Your task to perform on an android device: set an alarm Image 0: 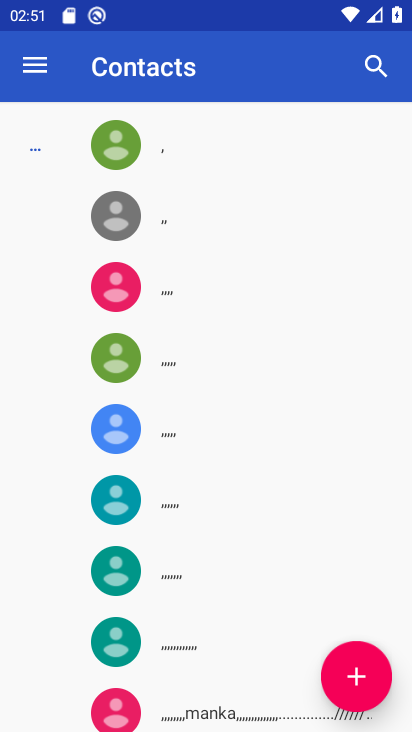
Step 0: press home button
Your task to perform on an android device: set an alarm Image 1: 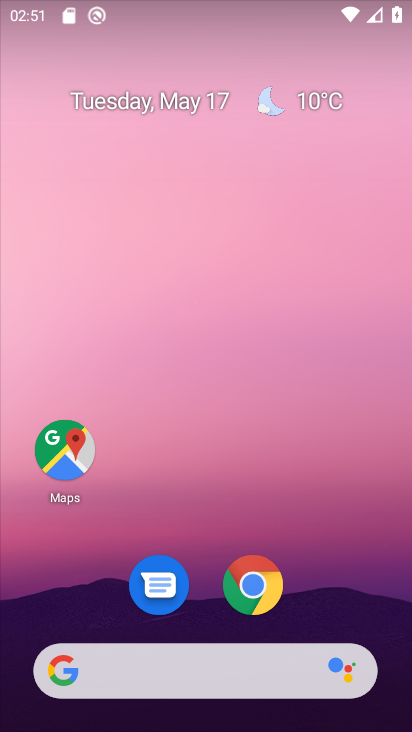
Step 1: drag from (247, 509) to (209, 61)
Your task to perform on an android device: set an alarm Image 2: 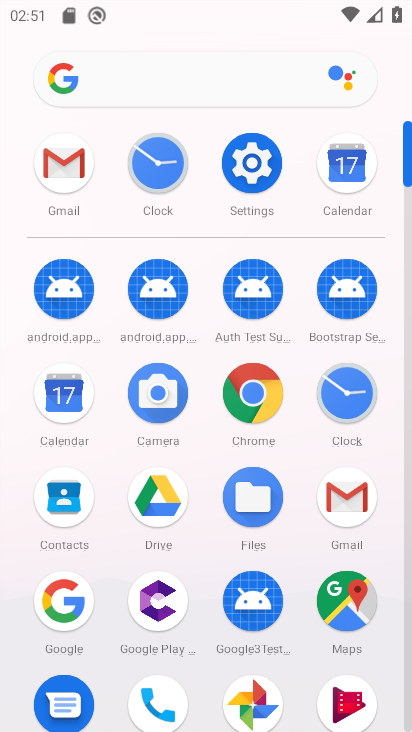
Step 2: click (157, 165)
Your task to perform on an android device: set an alarm Image 3: 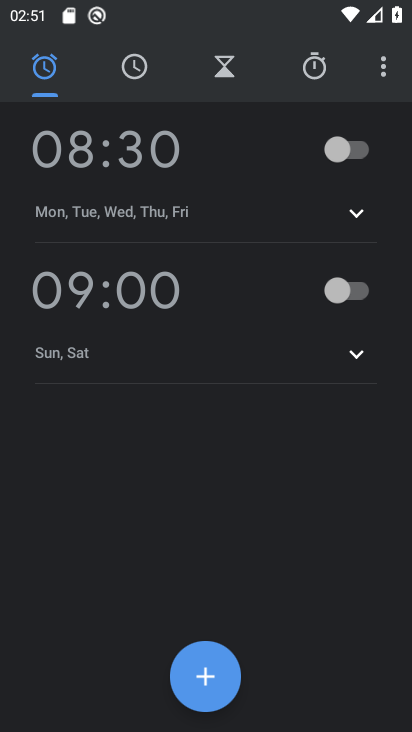
Step 3: click (200, 668)
Your task to perform on an android device: set an alarm Image 4: 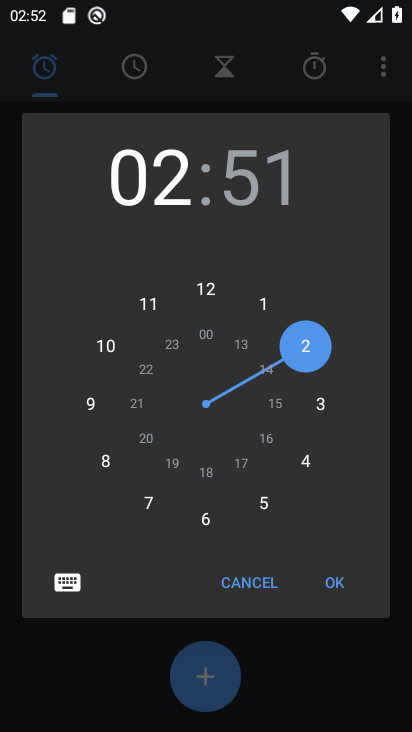
Step 4: click (261, 201)
Your task to perform on an android device: set an alarm Image 5: 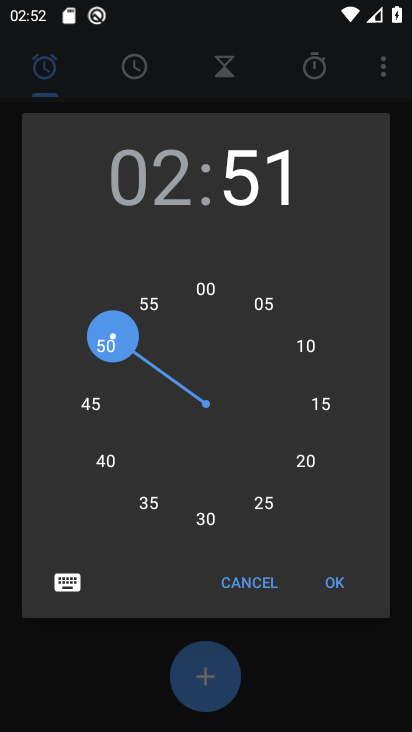
Step 5: click (206, 285)
Your task to perform on an android device: set an alarm Image 6: 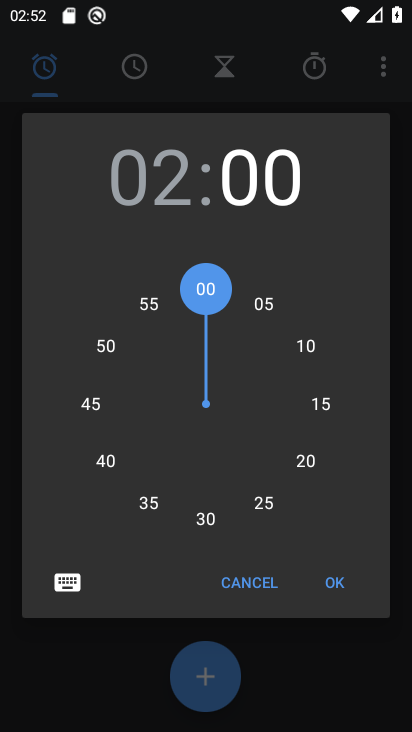
Step 6: click (333, 573)
Your task to perform on an android device: set an alarm Image 7: 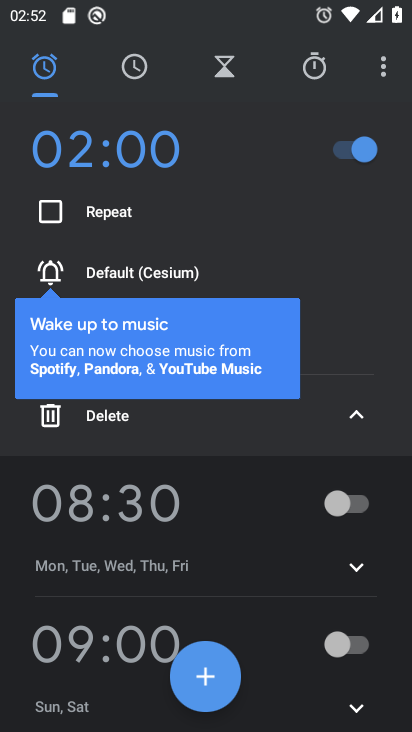
Step 7: task complete